Your task to perform on an android device: turn off sleep mode Image 0: 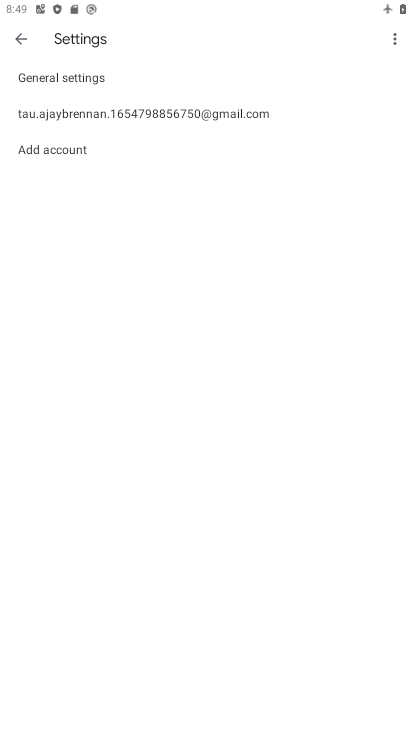
Step 0: press home button
Your task to perform on an android device: turn off sleep mode Image 1: 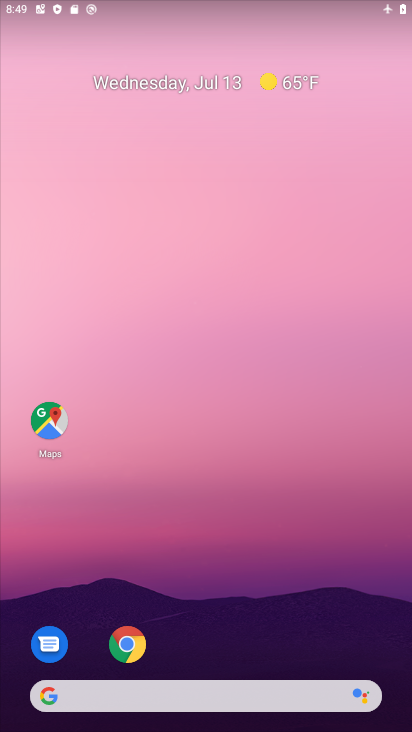
Step 1: drag from (277, 647) to (220, 5)
Your task to perform on an android device: turn off sleep mode Image 2: 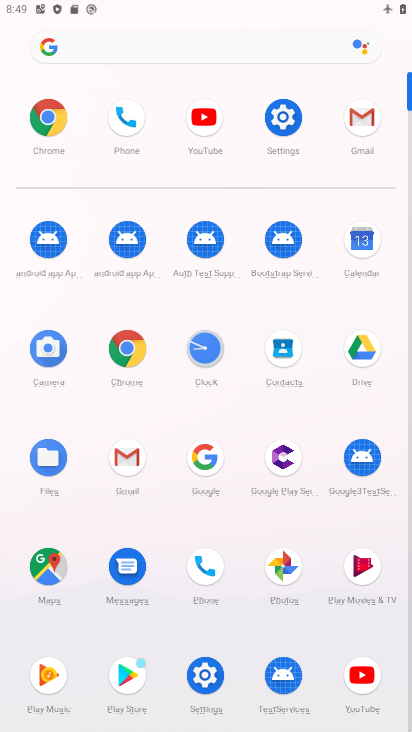
Step 2: click (272, 122)
Your task to perform on an android device: turn off sleep mode Image 3: 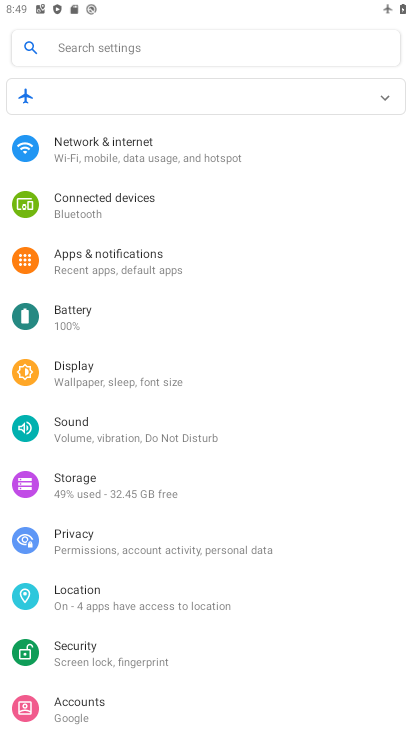
Step 3: click (74, 377)
Your task to perform on an android device: turn off sleep mode Image 4: 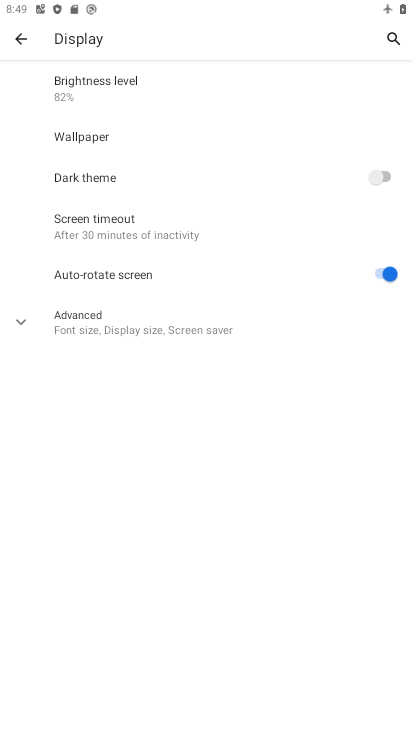
Step 4: click (116, 237)
Your task to perform on an android device: turn off sleep mode Image 5: 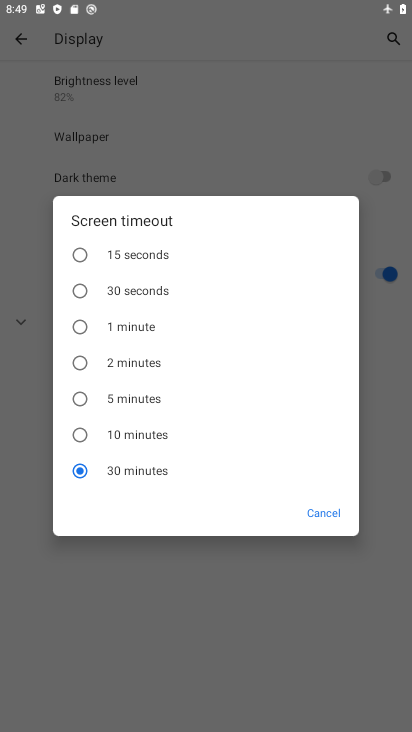
Step 5: task complete